Your task to perform on an android device: change the clock display to digital Image 0: 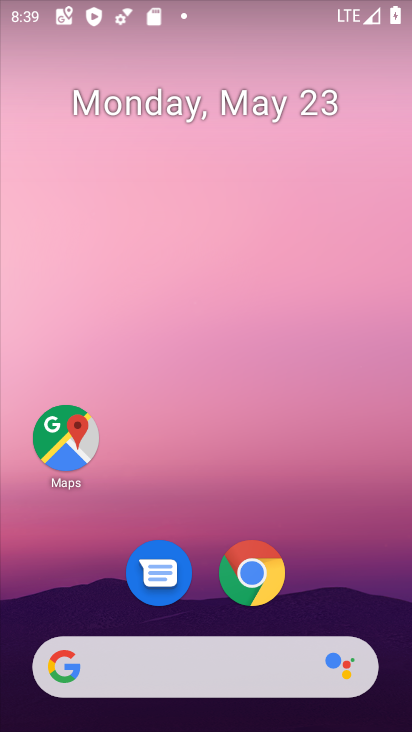
Step 0: drag from (205, 491) to (219, 10)
Your task to perform on an android device: change the clock display to digital Image 1: 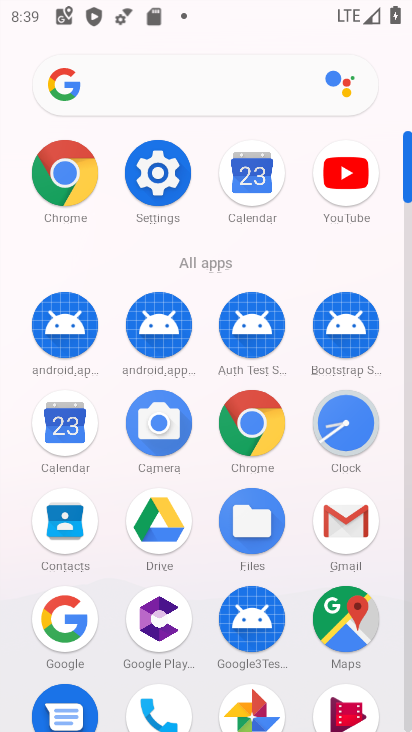
Step 1: click (366, 424)
Your task to perform on an android device: change the clock display to digital Image 2: 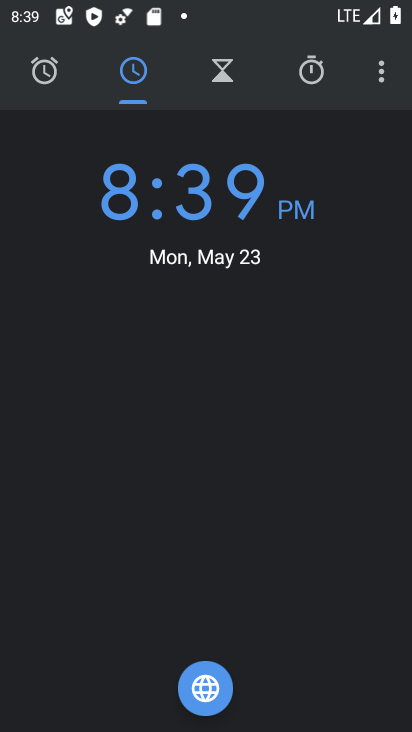
Step 2: task complete